Your task to perform on an android device: What's on my calendar tomorrow? Image 0: 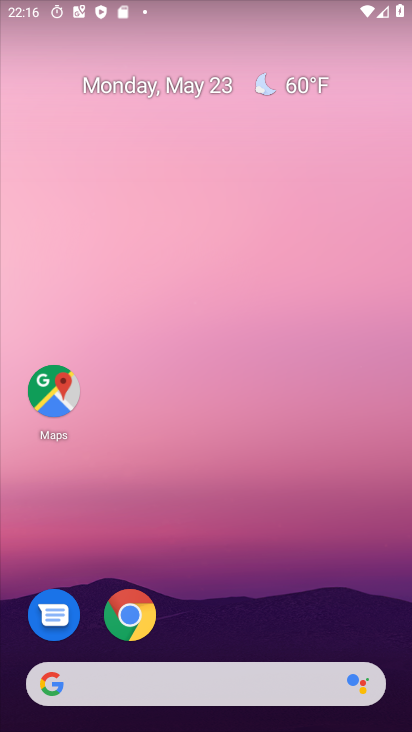
Step 0: drag from (208, 598) to (192, 157)
Your task to perform on an android device: What's on my calendar tomorrow? Image 1: 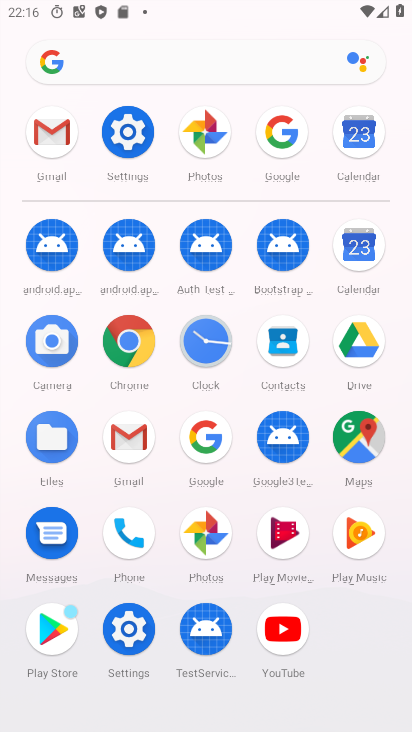
Step 1: click (353, 130)
Your task to perform on an android device: What's on my calendar tomorrow? Image 2: 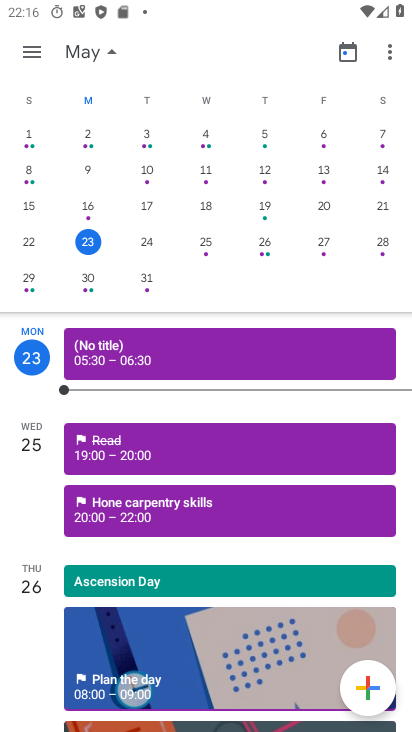
Step 2: click (137, 234)
Your task to perform on an android device: What's on my calendar tomorrow? Image 3: 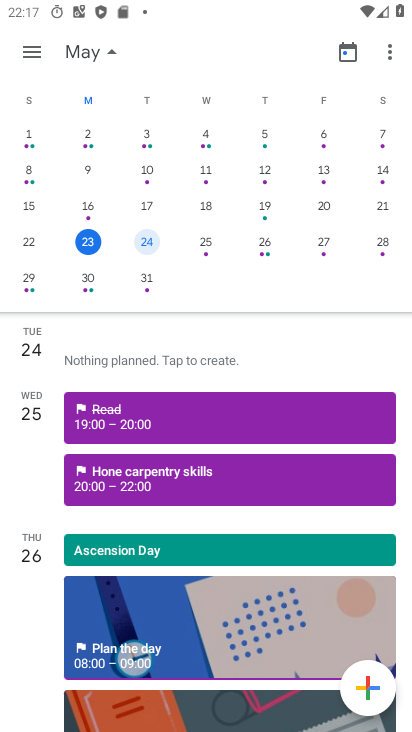
Step 3: task complete